Your task to perform on an android device: Open Chrome and go to settings Image 0: 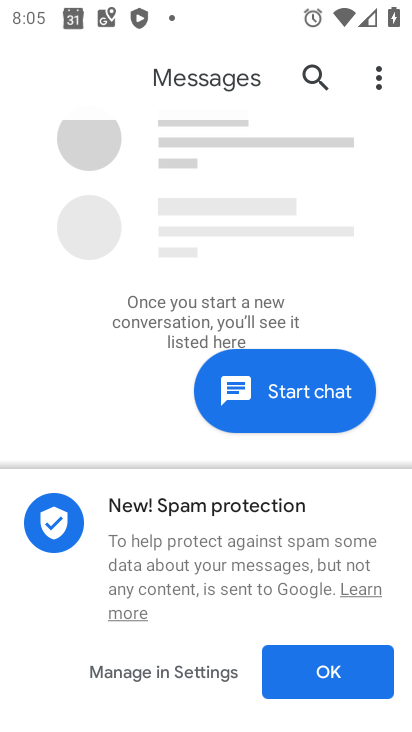
Step 0: press home button
Your task to perform on an android device: Open Chrome and go to settings Image 1: 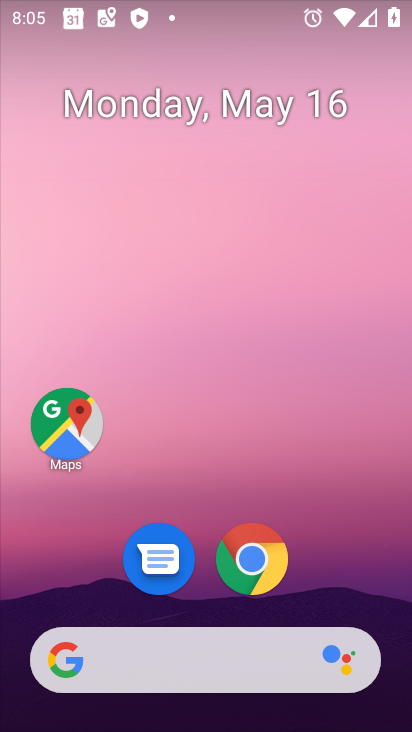
Step 1: click (258, 572)
Your task to perform on an android device: Open Chrome and go to settings Image 2: 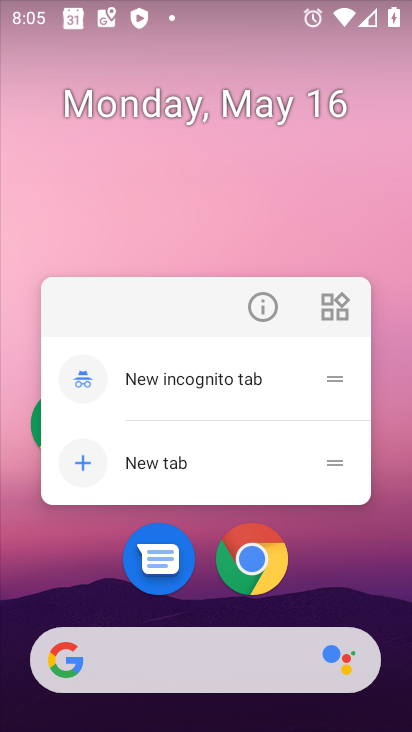
Step 2: click (267, 578)
Your task to perform on an android device: Open Chrome and go to settings Image 3: 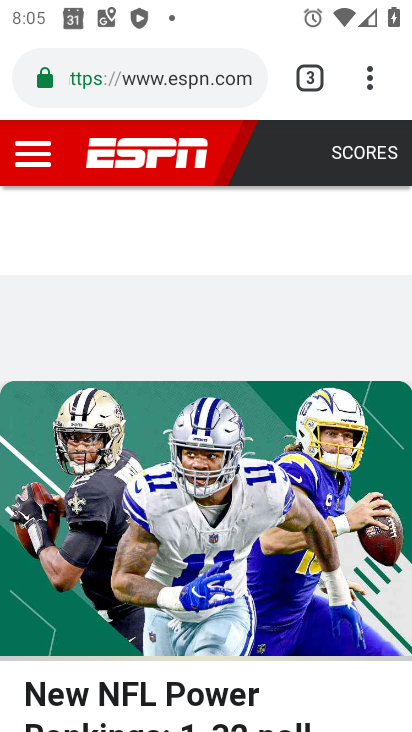
Step 3: task complete